Your task to perform on an android device: turn smart compose on in the gmail app Image 0: 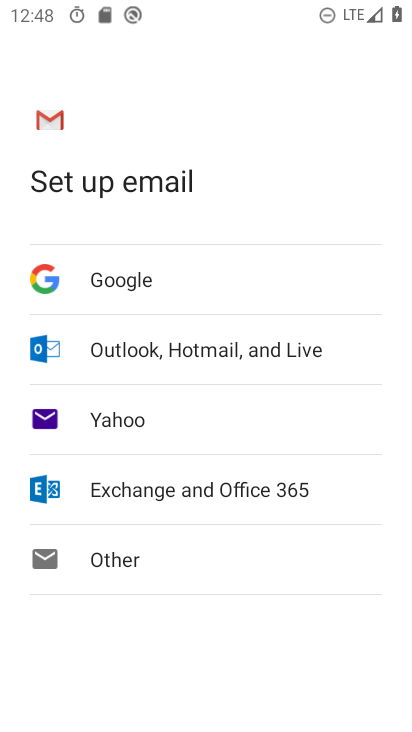
Step 0: press home button
Your task to perform on an android device: turn smart compose on in the gmail app Image 1: 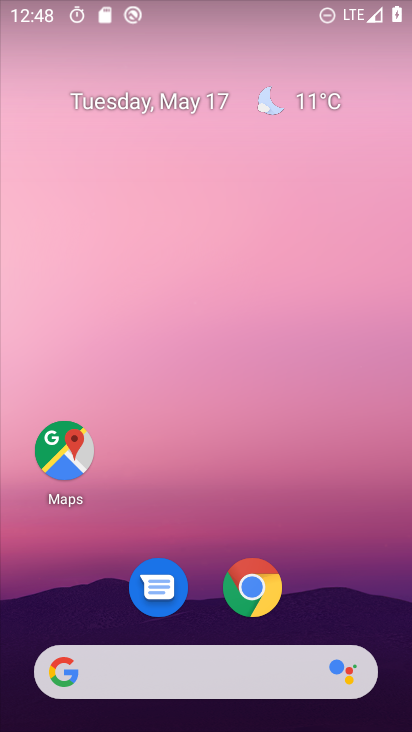
Step 1: drag from (246, 615) to (245, 131)
Your task to perform on an android device: turn smart compose on in the gmail app Image 2: 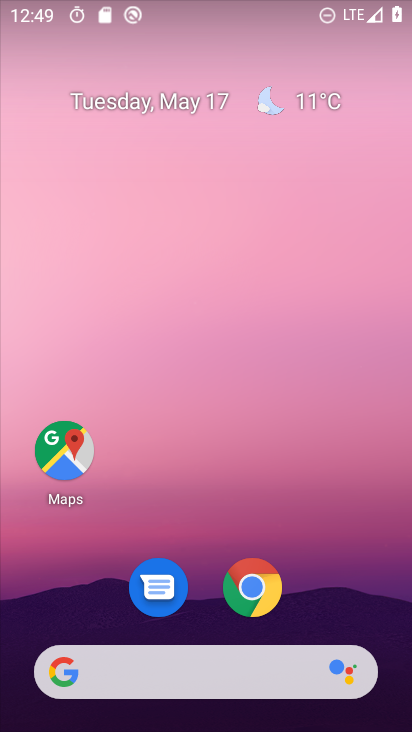
Step 2: drag from (212, 618) to (275, 190)
Your task to perform on an android device: turn smart compose on in the gmail app Image 3: 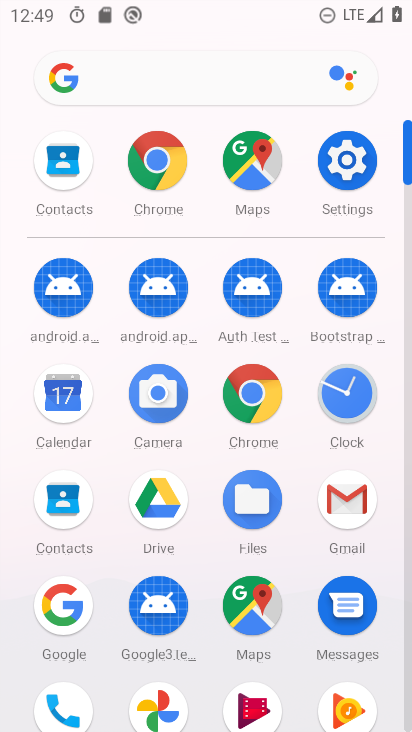
Step 3: click (365, 492)
Your task to perform on an android device: turn smart compose on in the gmail app Image 4: 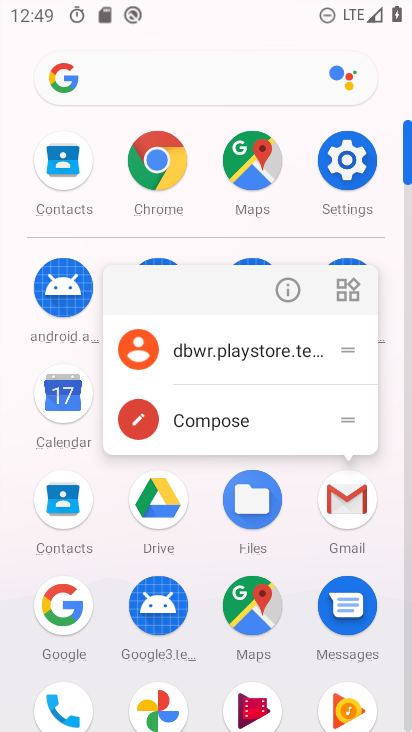
Step 4: click (262, 343)
Your task to perform on an android device: turn smart compose on in the gmail app Image 5: 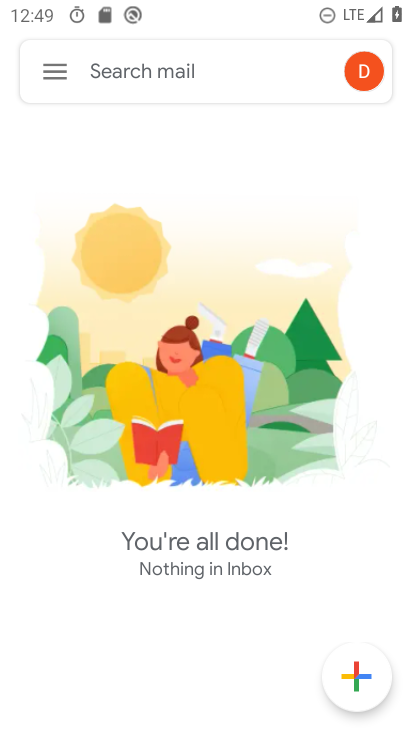
Step 5: click (52, 57)
Your task to perform on an android device: turn smart compose on in the gmail app Image 6: 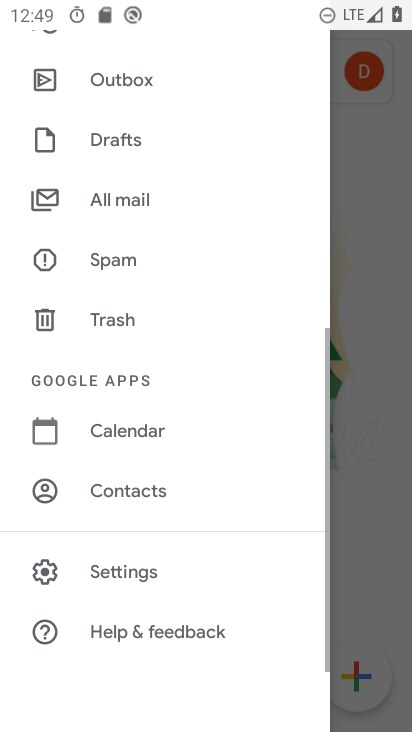
Step 6: click (166, 579)
Your task to perform on an android device: turn smart compose on in the gmail app Image 7: 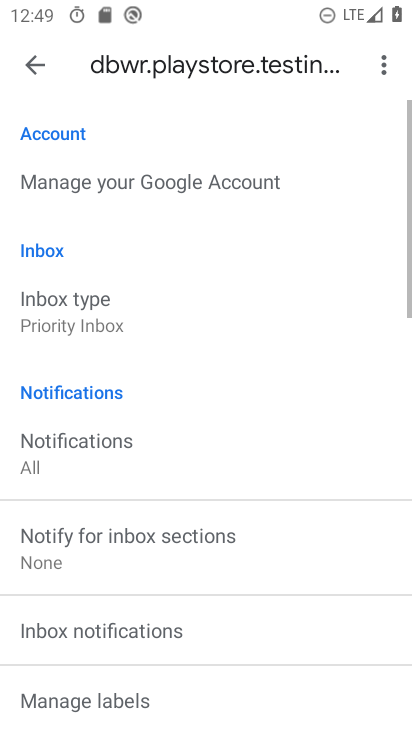
Step 7: task complete